Your task to perform on an android device: open a bookmark in the chrome app Image 0: 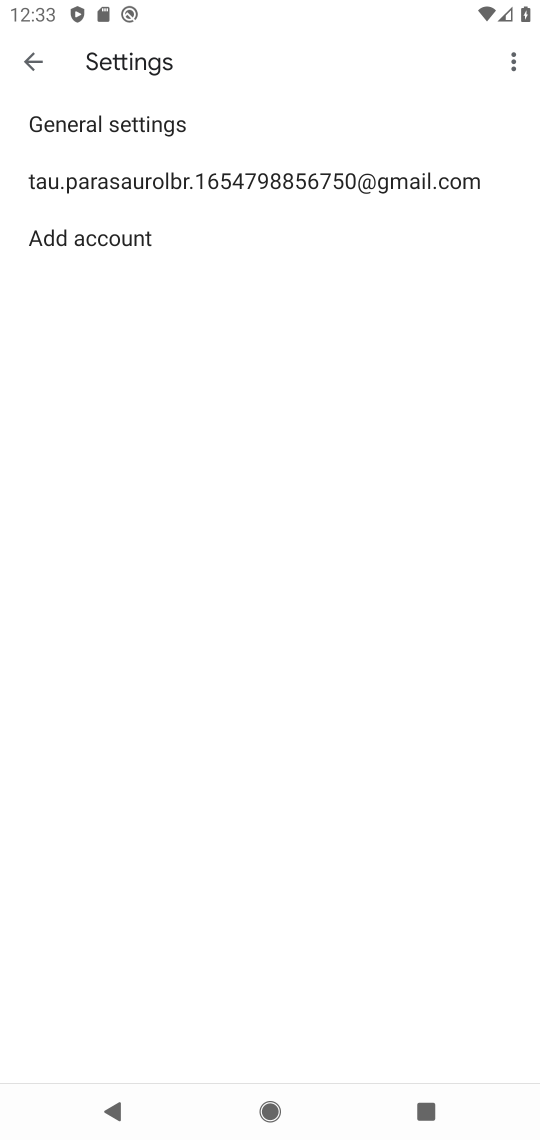
Step 0: press home button
Your task to perform on an android device: open a bookmark in the chrome app Image 1: 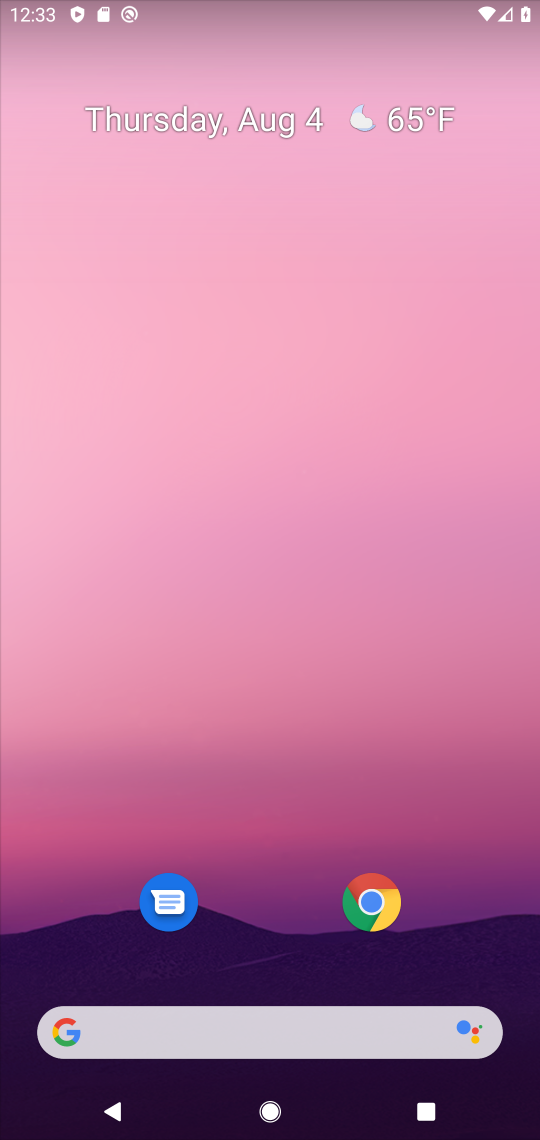
Step 1: click (373, 902)
Your task to perform on an android device: open a bookmark in the chrome app Image 2: 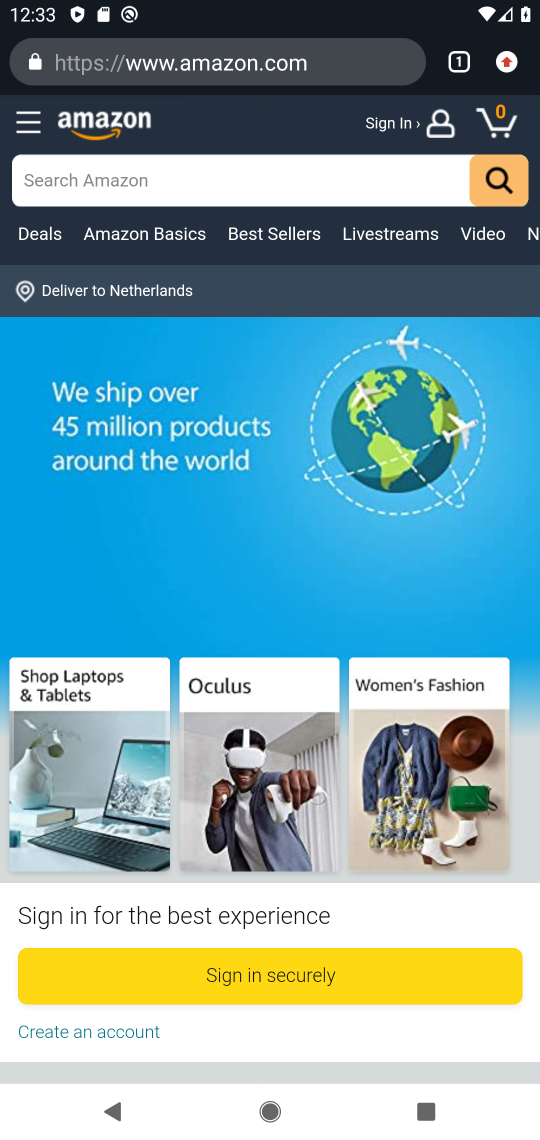
Step 2: click (490, 74)
Your task to perform on an android device: open a bookmark in the chrome app Image 3: 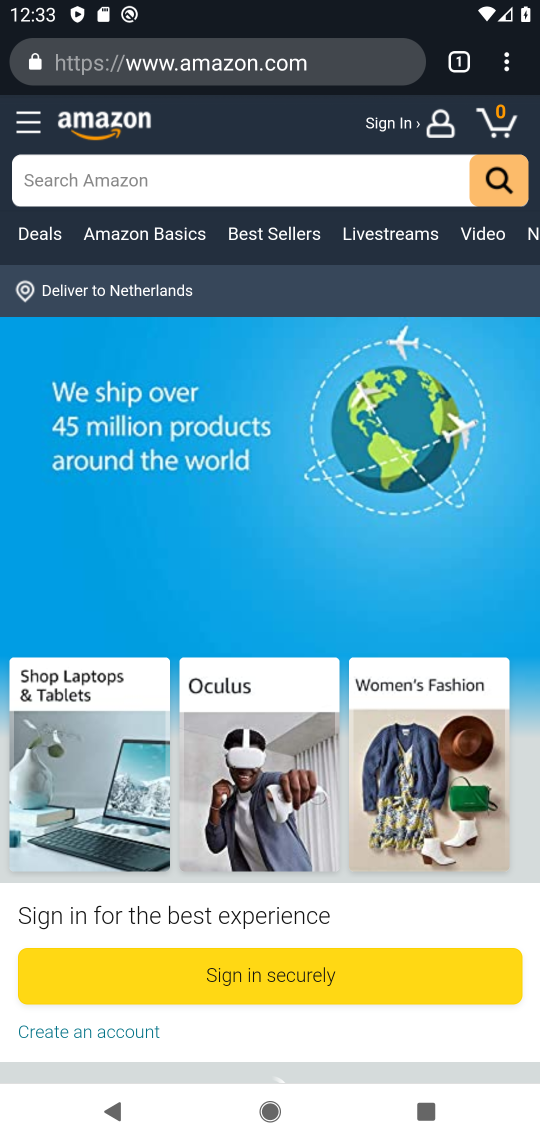
Step 3: click (492, 74)
Your task to perform on an android device: open a bookmark in the chrome app Image 4: 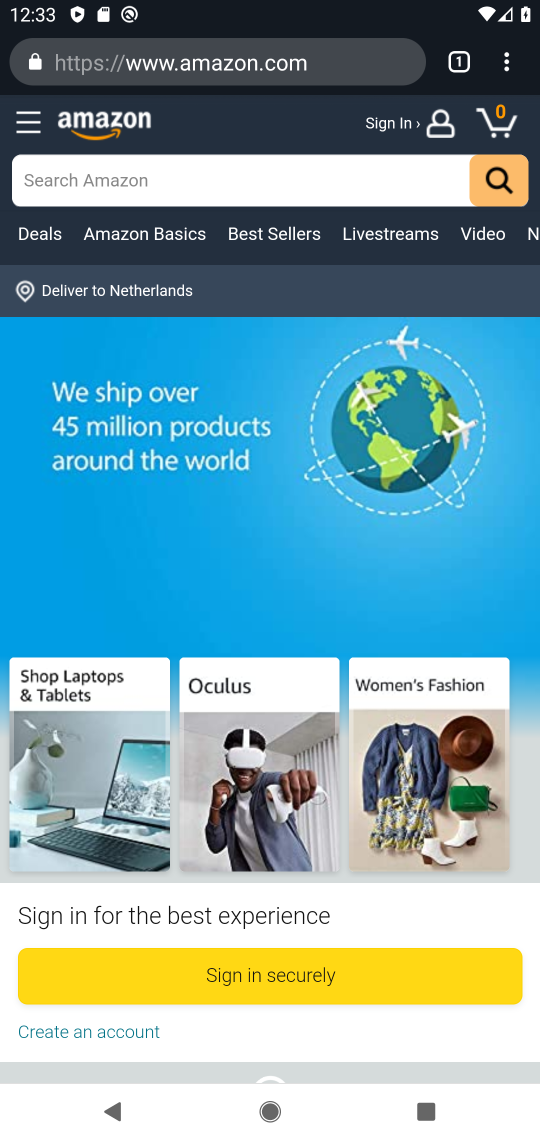
Step 4: click (502, 74)
Your task to perform on an android device: open a bookmark in the chrome app Image 5: 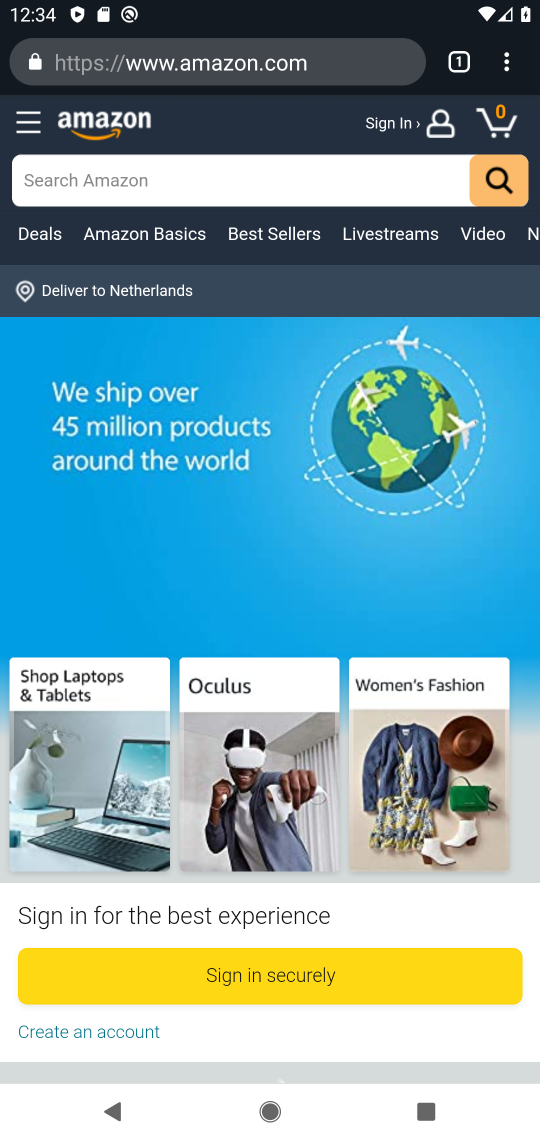
Step 5: click (496, 67)
Your task to perform on an android device: open a bookmark in the chrome app Image 6: 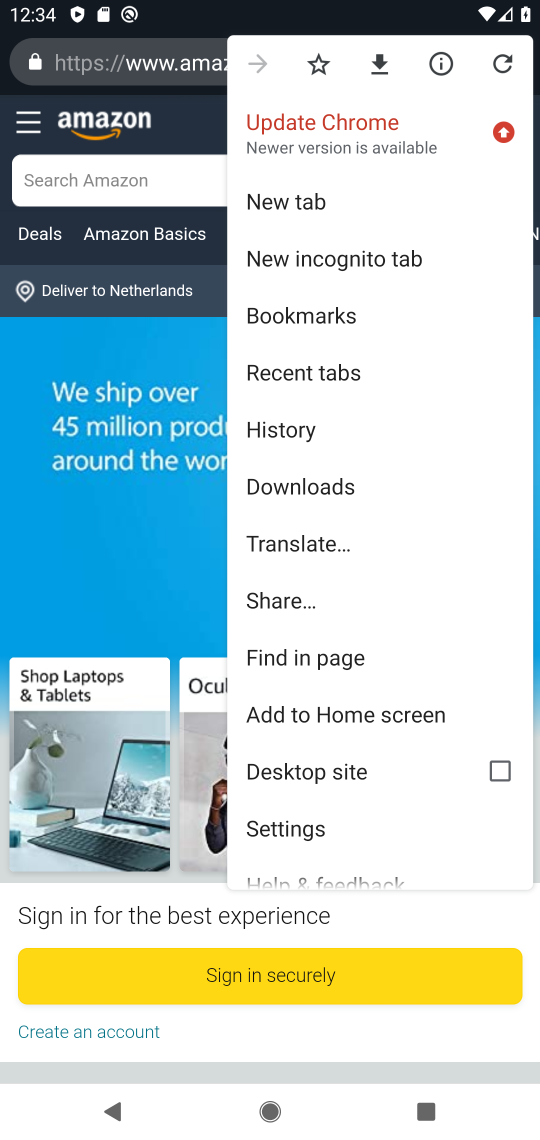
Step 6: click (288, 321)
Your task to perform on an android device: open a bookmark in the chrome app Image 7: 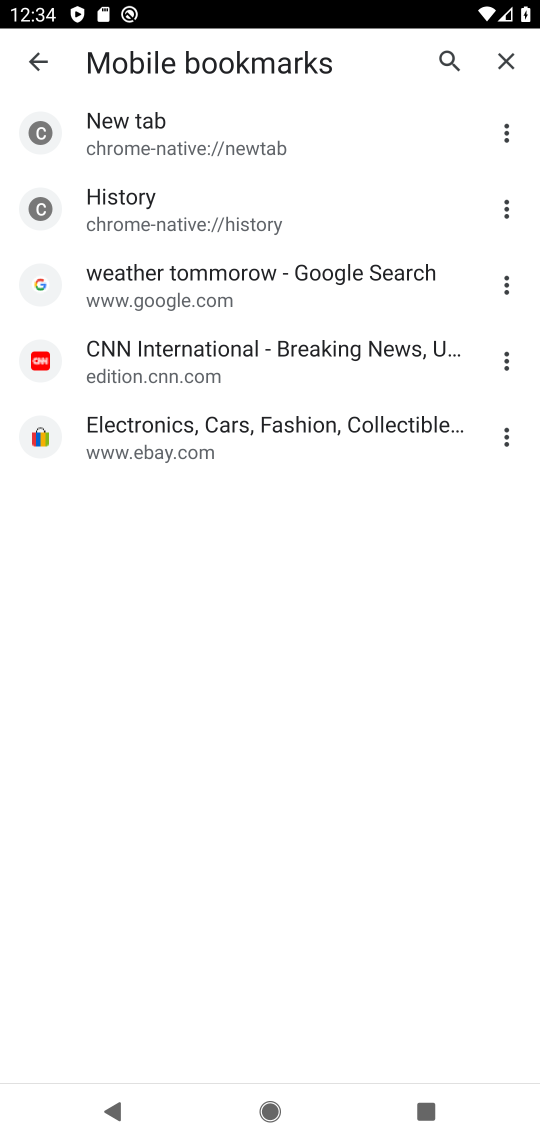
Step 7: click (142, 301)
Your task to perform on an android device: open a bookmark in the chrome app Image 8: 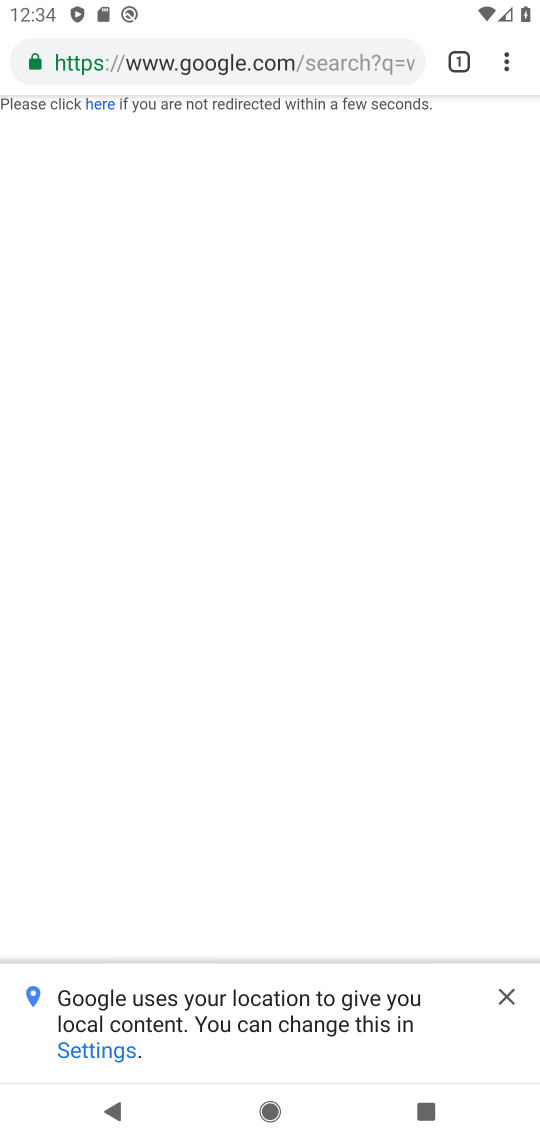
Step 8: task complete